Your task to perform on an android device: Open Chrome and go to settings Image 0: 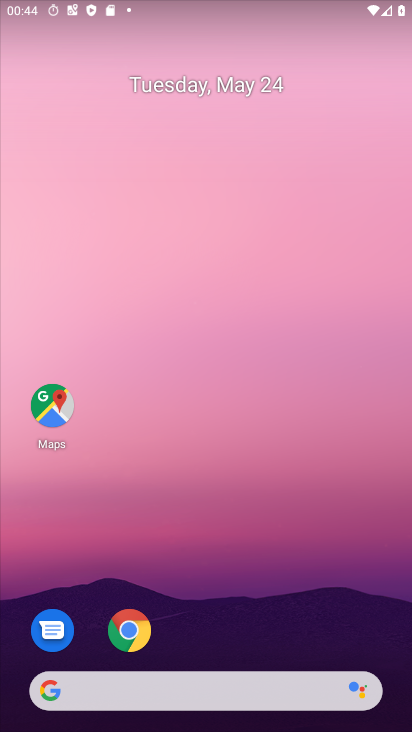
Step 0: click (136, 644)
Your task to perform on an android device: Open Chrome and go to settings Image 1: 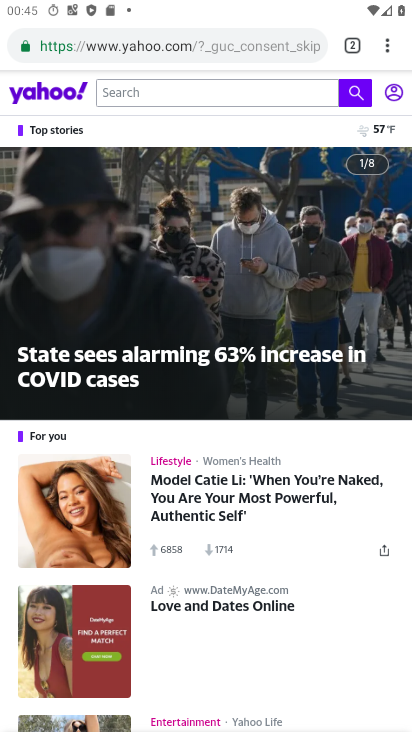
Step 1: click (384, 47)
Your task to perform on an android device: Open Chrome and go to settings Image 2: 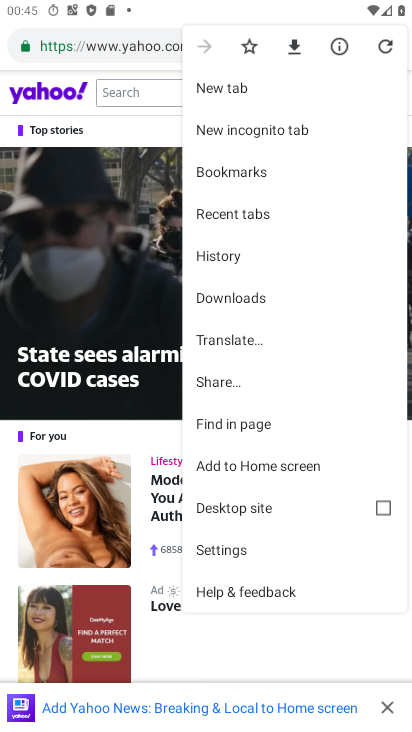
Step 2: click (206, 547)
Your task to perform on an android device: Open Chrome and go to settings Image 3: 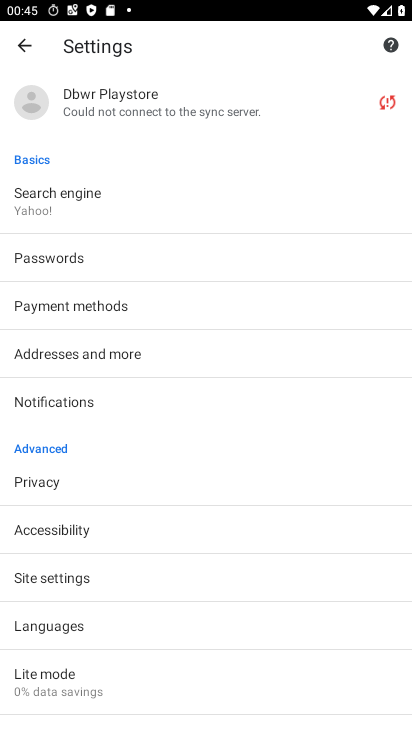
Step 3: task complete